Your task to perform on an android device: Go to Android settings Image 0: 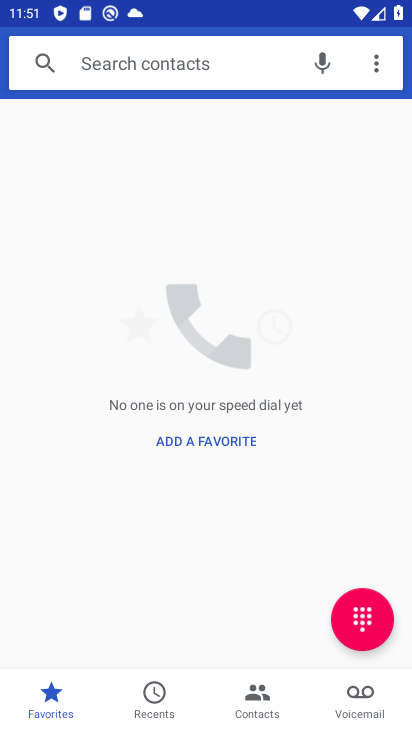
Step 0: press home button
Your task to perform on an android device: Go to Android settings Image 1: 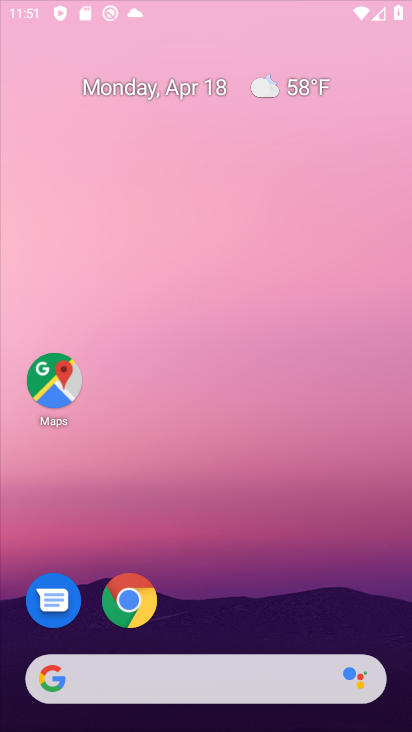
Step 1: press home button
Your task to perform on an android device: Go to Android settings Image 2: 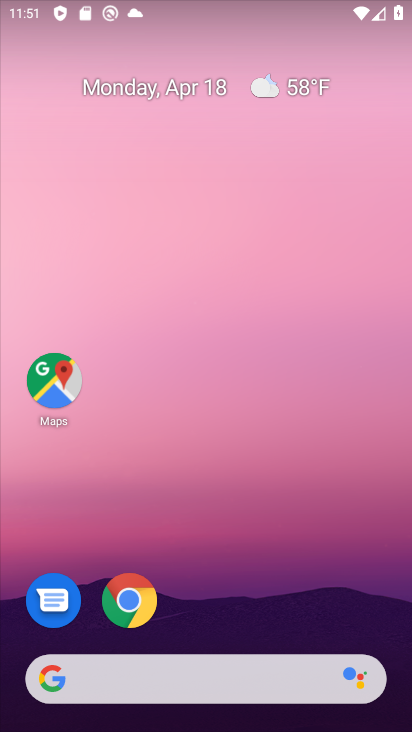
Step 2: drag from (278, 575) to (246, 279)
Your task to perform on an android device: Go to Android settings Image 3: 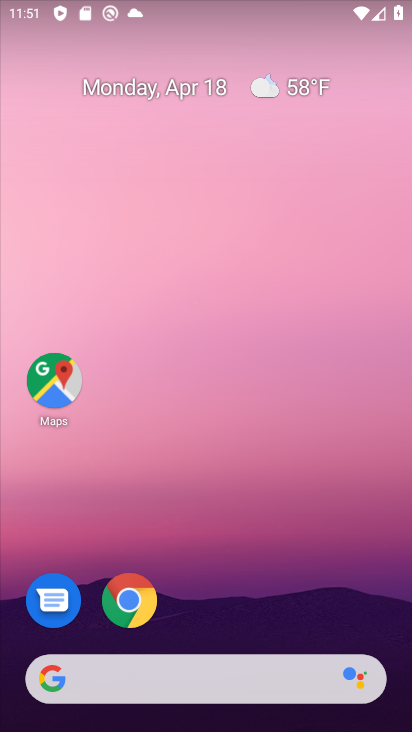
Step 3: drag from (234, 617) to (330, 306)
Your task to perform on an android device: Go to Android settings Image 4: 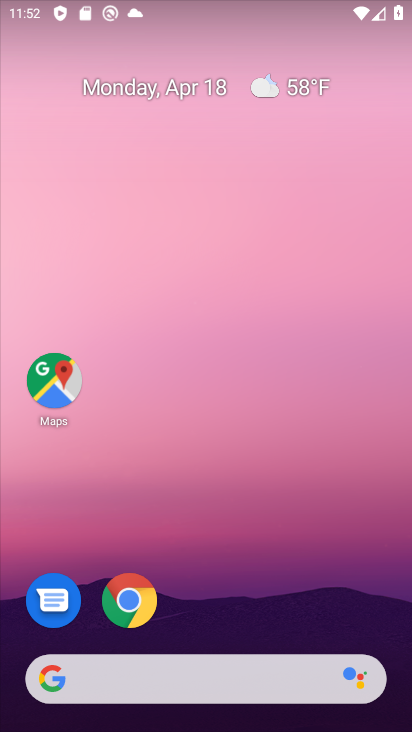
Step 4: drag from (247, 698) to (267, 135)
Your task to perform on an android device: Go to Android settings Image 5: 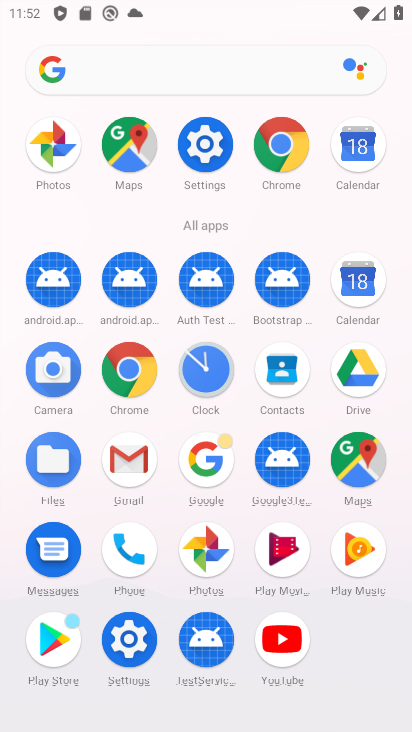
Step 5: click (224, 137)
Your task to perform on an android device: Go to Android settings Image 6: 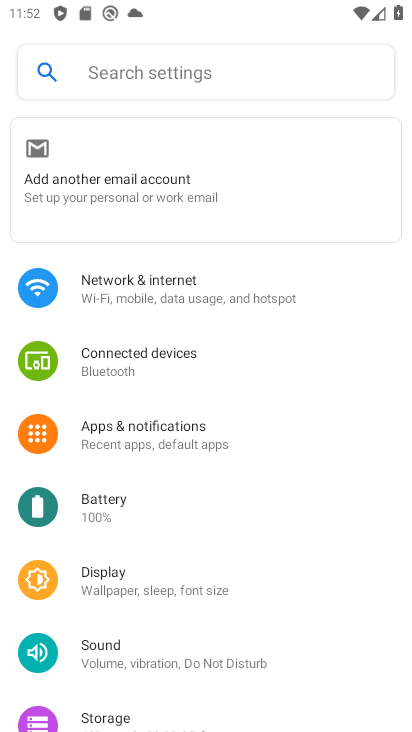
Step 6: click (136, 77)
Your task to perform on an android device: Go to Android settings Image 7: 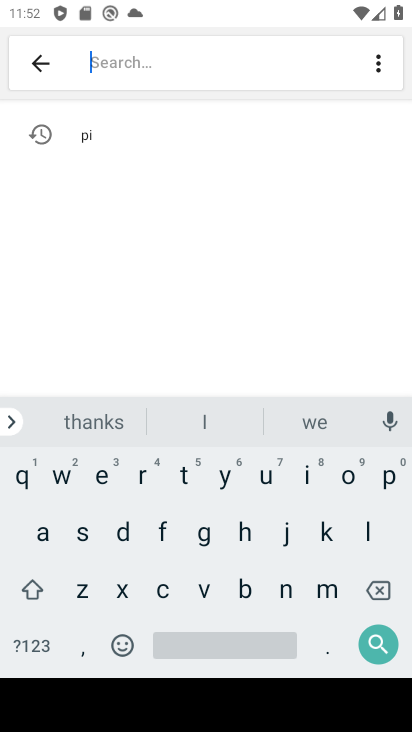
Step 7: click (41, 530)
Your task to perform on an android device: Go to Android settings Image 8: 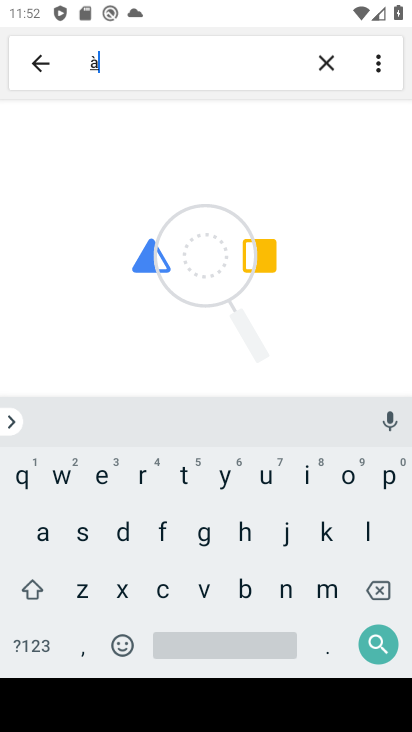
Step 8: click (374, 588)
Your task to perform on an android device: Go to Android settings Image 9: 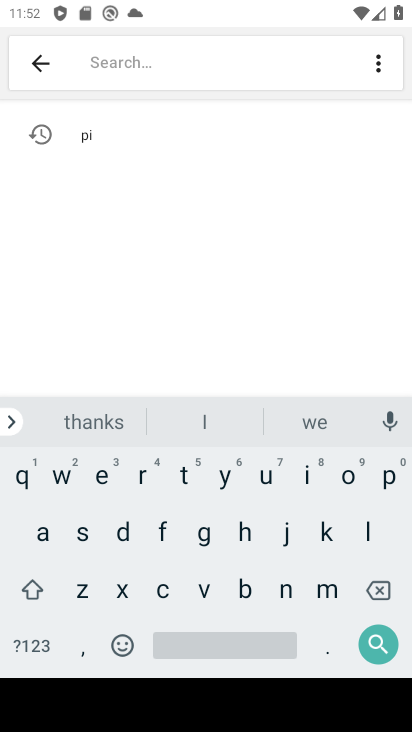
Step 9: click (49, 524)
Your task to perform on an android device: Go to Android settings Image 10: 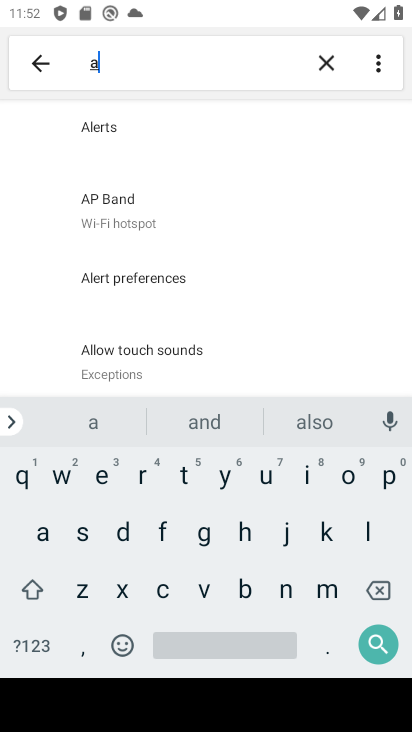
Step 10: click (279, 594)
Your task to perform on an android device: Go to Android settings Image 11: 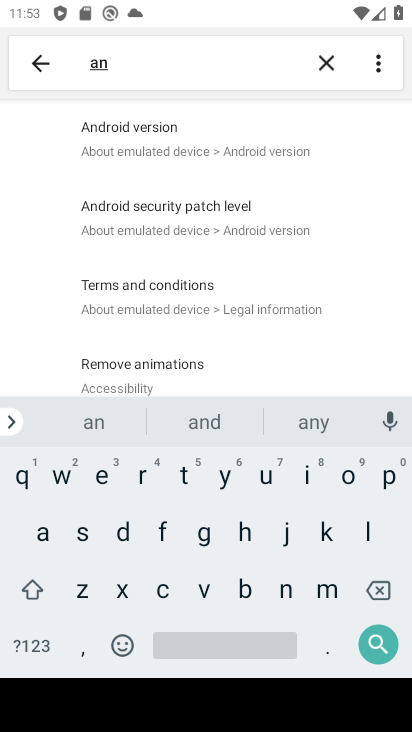
Step 11: click (178, 124)
Your task to perform on an android device: Go to Android settings Image 12: 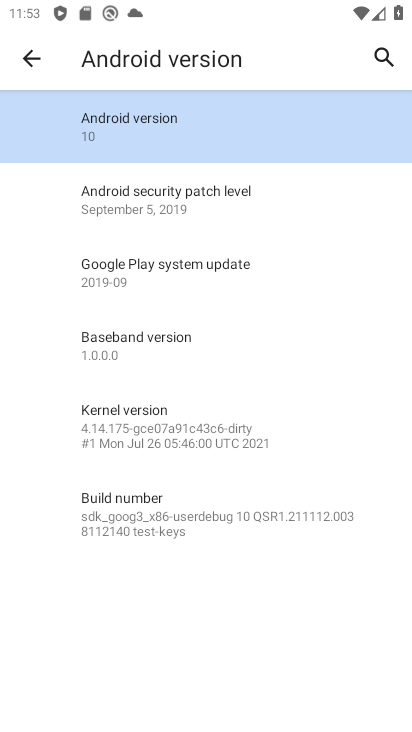
Step 12: task complete